Your task to perform on an android device: Go to CNN.com Image 0: 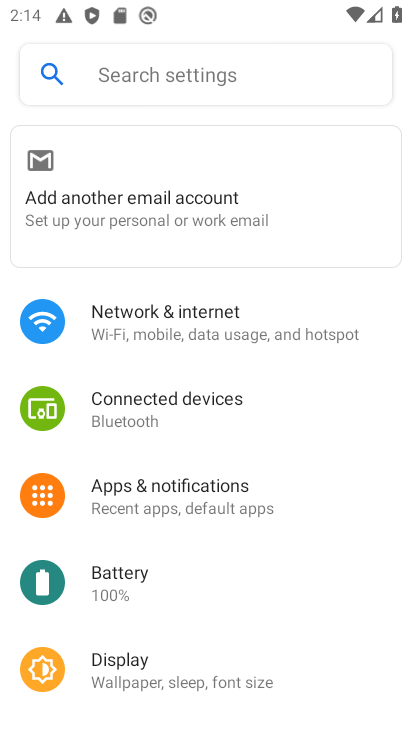
Step 0: press home button
Your task to perform on an android device: Go to CNN.com Image 1: 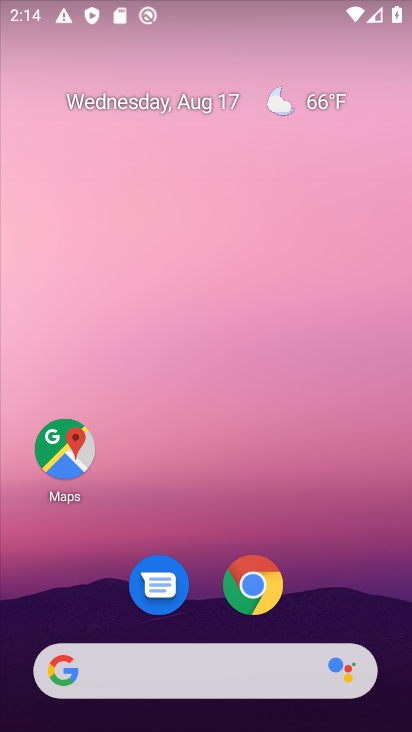
Step 1: click (240, 673)
Your task to perform on an android device: Go to CNN.com Image 2: 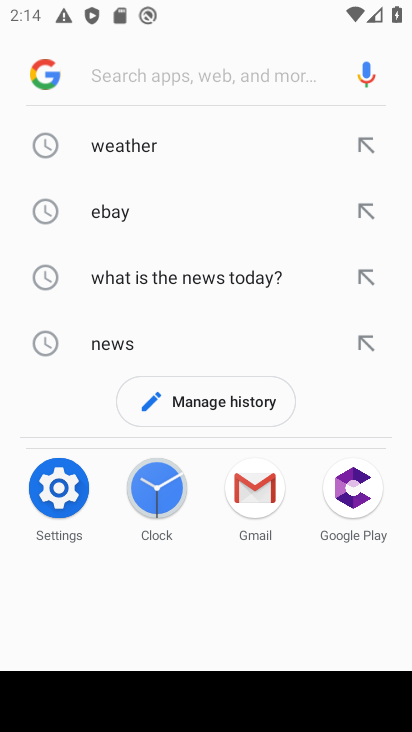
Step 2: type "cnn.com"
Your task to perform on an android device: Go to CNN.com Image 3: 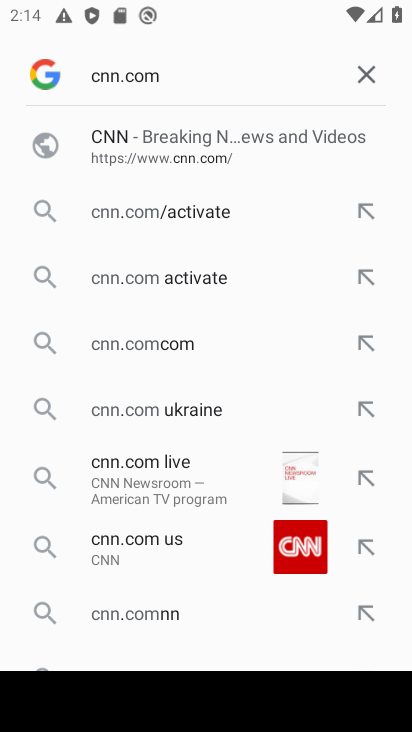
Step 3: click (173, 345)
Your task to perform on an android device: Go to CNN.com Image 4: 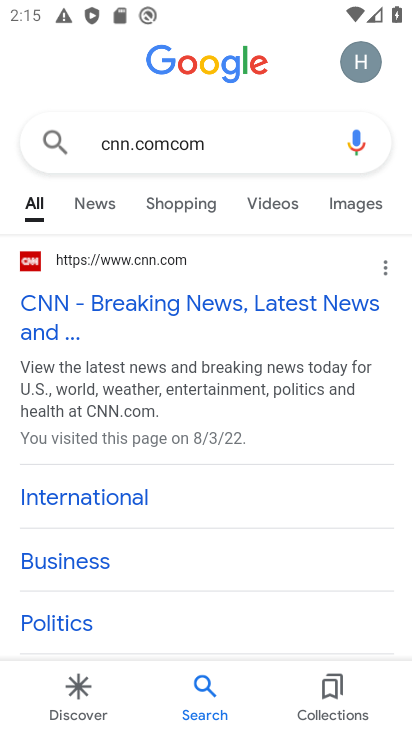
Step 4: click (160, 307)
Your task to perform on an android device: Go to CNN.com Image 5: 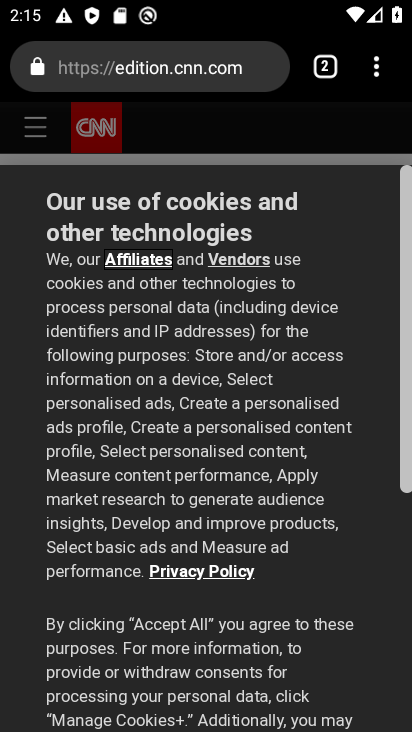
Step 5: drag from (240, 641) to (271, 160)
Your task to perform on an android device: Go to CNN.com Image 6: 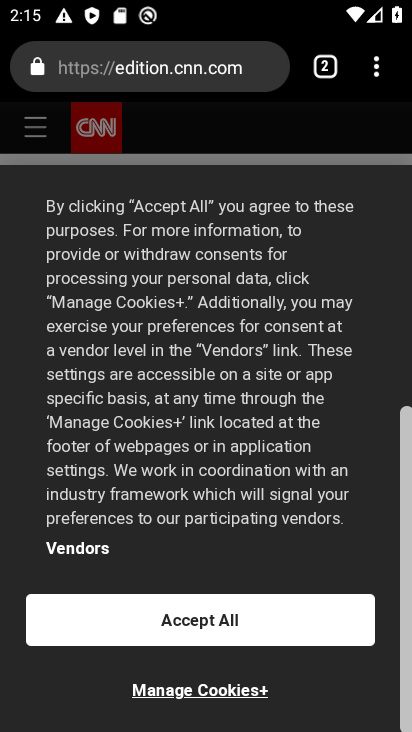
Step 6: click (232, 619)
Your task to perform on an android device: Go to CNN.com Image 7: 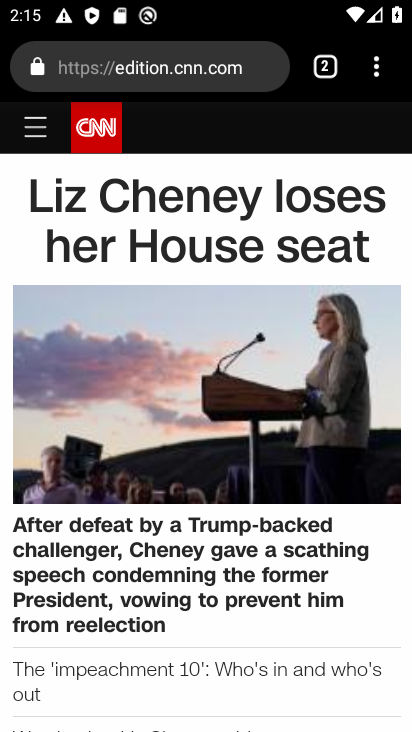
Step 7: task complete